Your task to perform on an android device: check data usage Image 0: 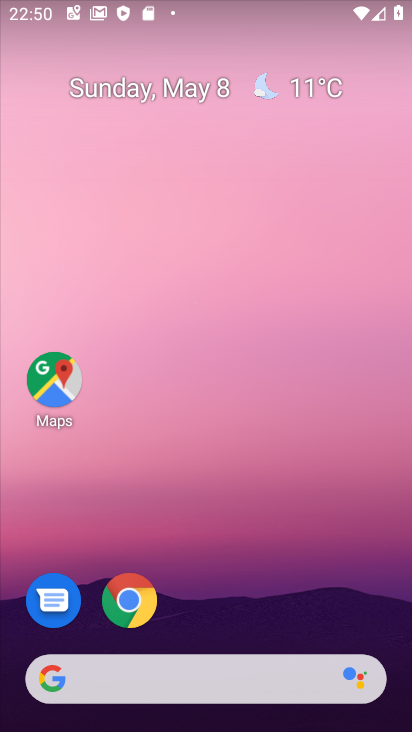
Step 0: drag from (189, 644) to (204, 223)
Your task to perform on an android device: check data usage Image 1: 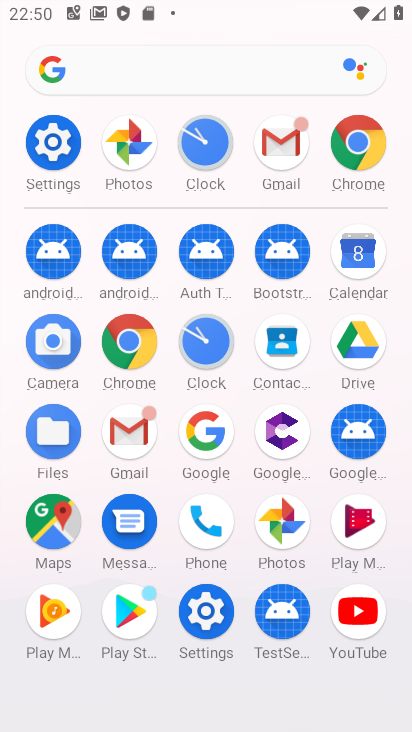
Step 1: click (49, 147)
Your task to perform on an android device: check data usage Image 2: 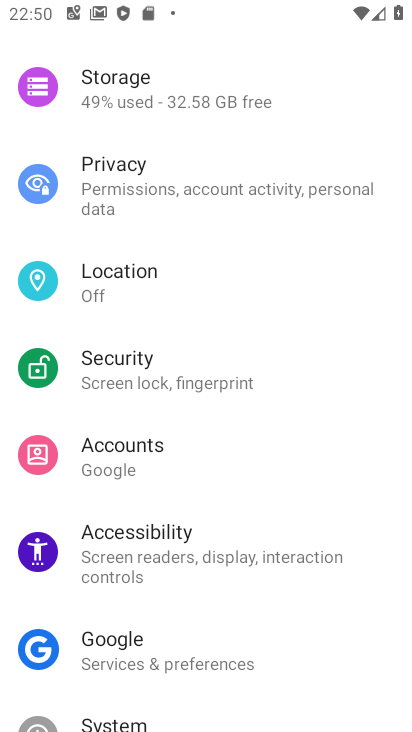
Step 2: drag from (251, 127) to (224, 667)
Your task to perform on an android device: check data usage Image 3: 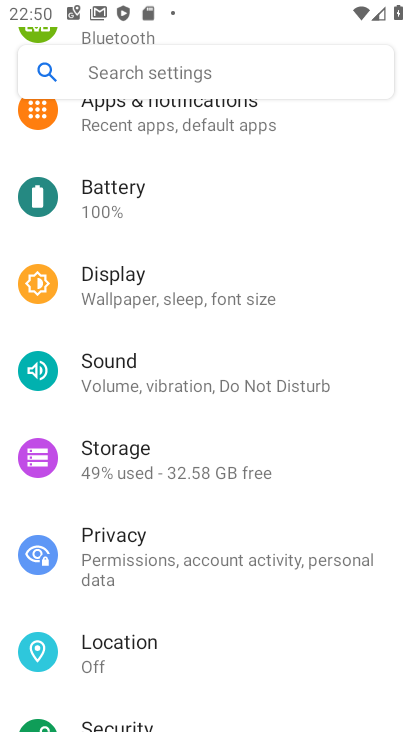
Step 3: drag from (220, 234) to (220, 658)
Your task to perform on an android device: check data usage Image 4: 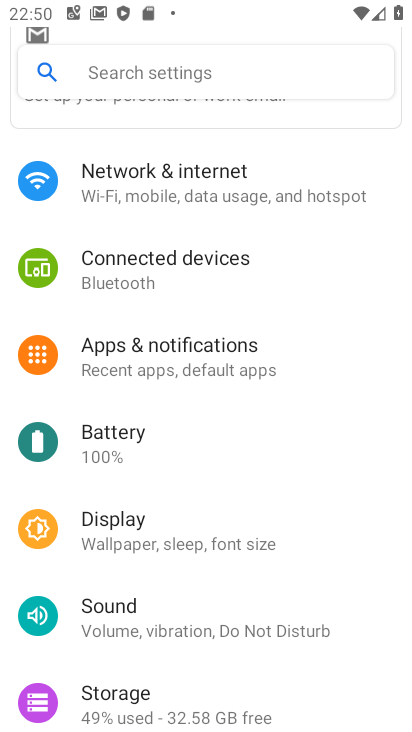
Step 4: click (203, 187)
Your task to perform on an android device: check data usage Image 5: 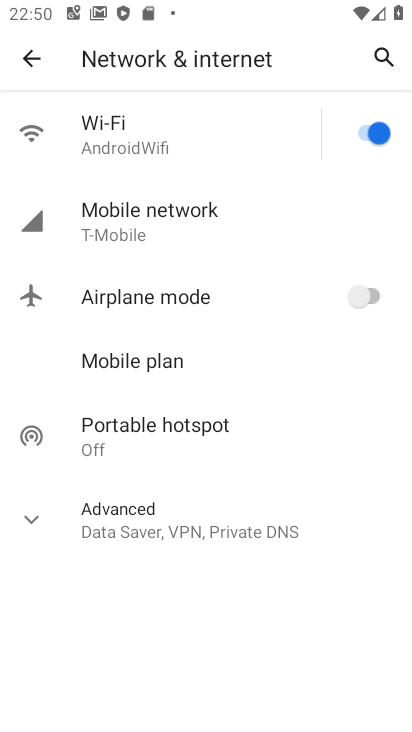
Step 5: click (212, 229)
Your task to perform on an android device: check data usage Image 6: 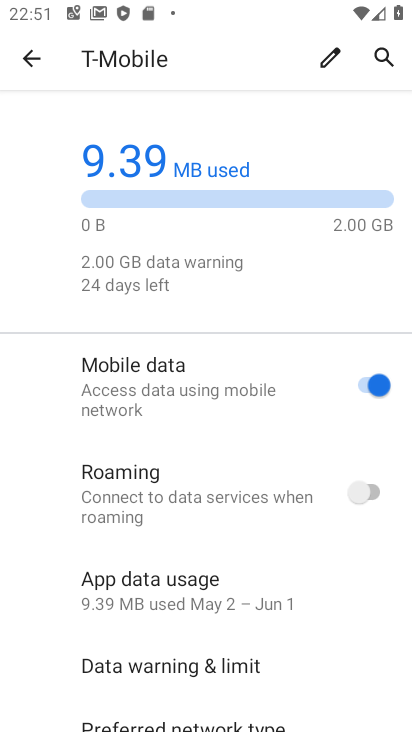
Step 6: task complete